Your task to perform on an android device: open app "WhatsApp Messenger" Image 0: 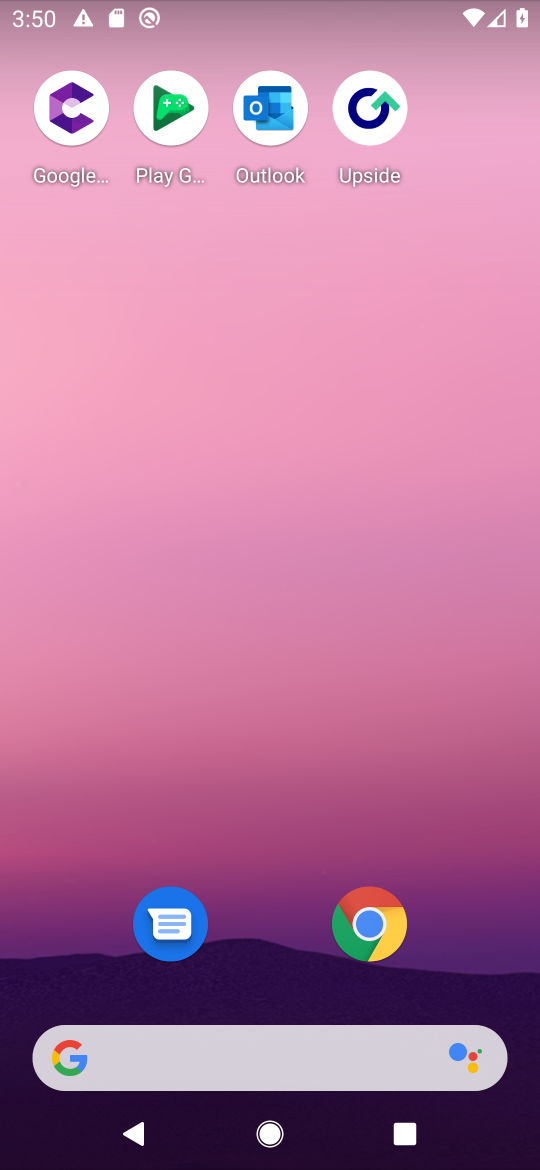
Step 0: drag from (427, 680) to (422, 187)
Your task to perform on an android device: open app "WhatsApp Messenger" Image 1: 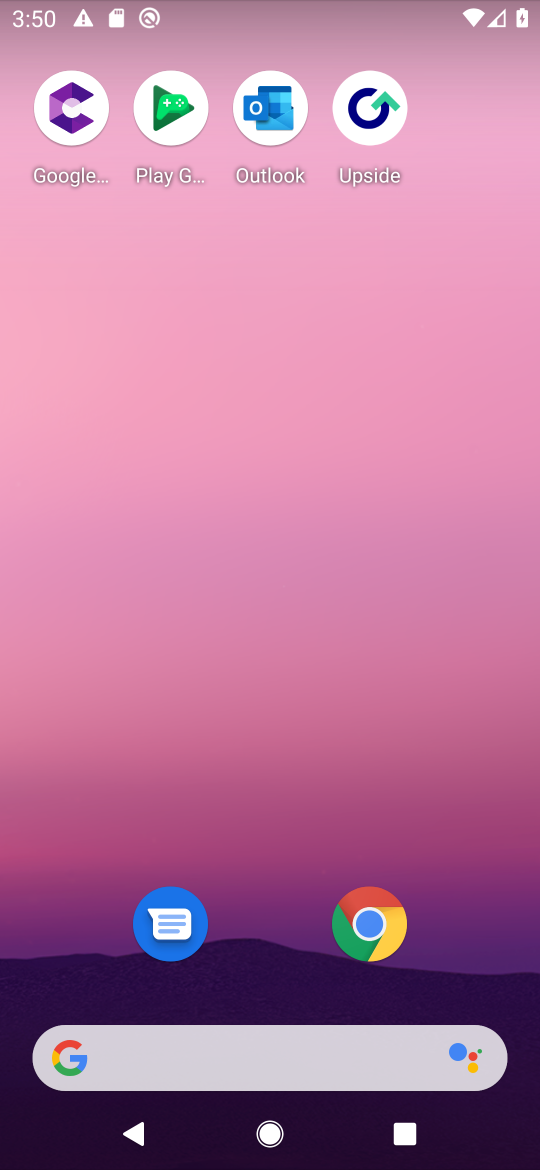
Step 1: drag from (289, 894) to (254, 10)
Your task to perform on an android device: open app "WhatsApp Messenger" Image 2: 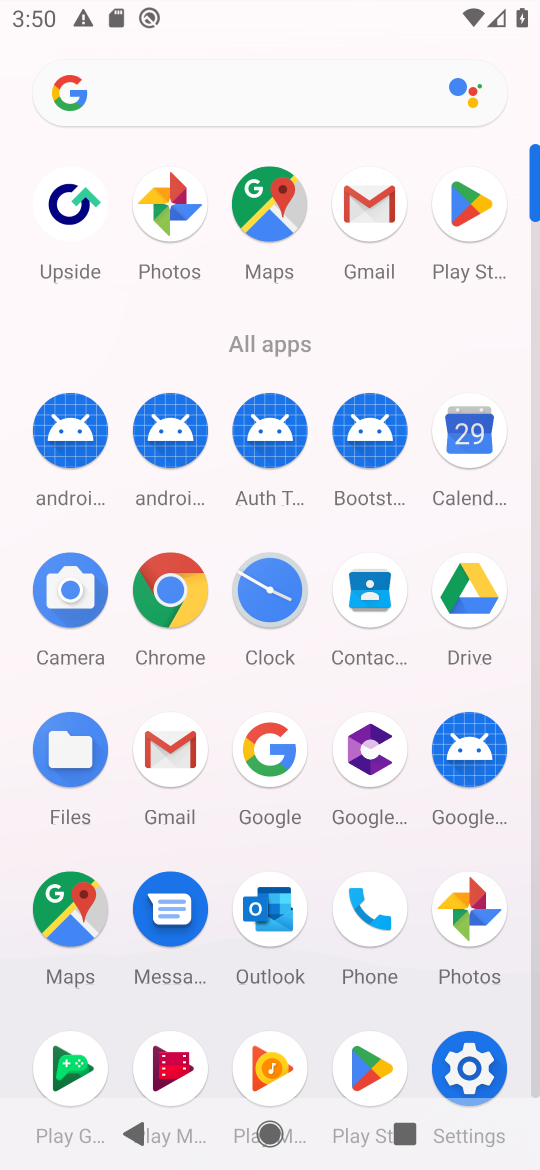
Step 2: click (449, 228)
Your task to perform on an android device: open app "WhatsApp Messenger" Image 3: 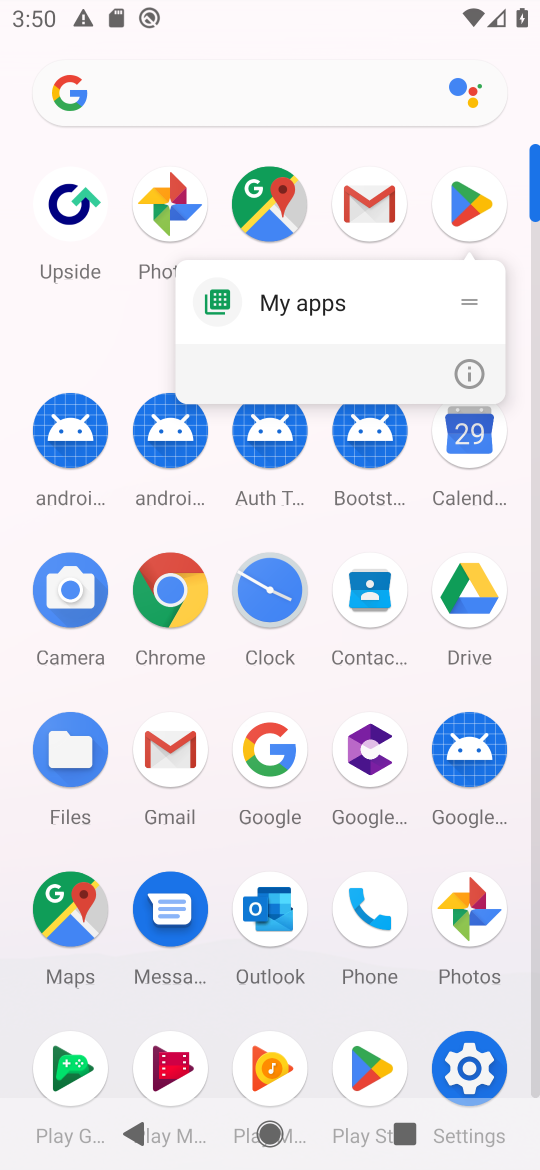
Step 3: click (462, 215)
Your task to perform on an android device: open app "WhatsApp Messenger" Image 4: 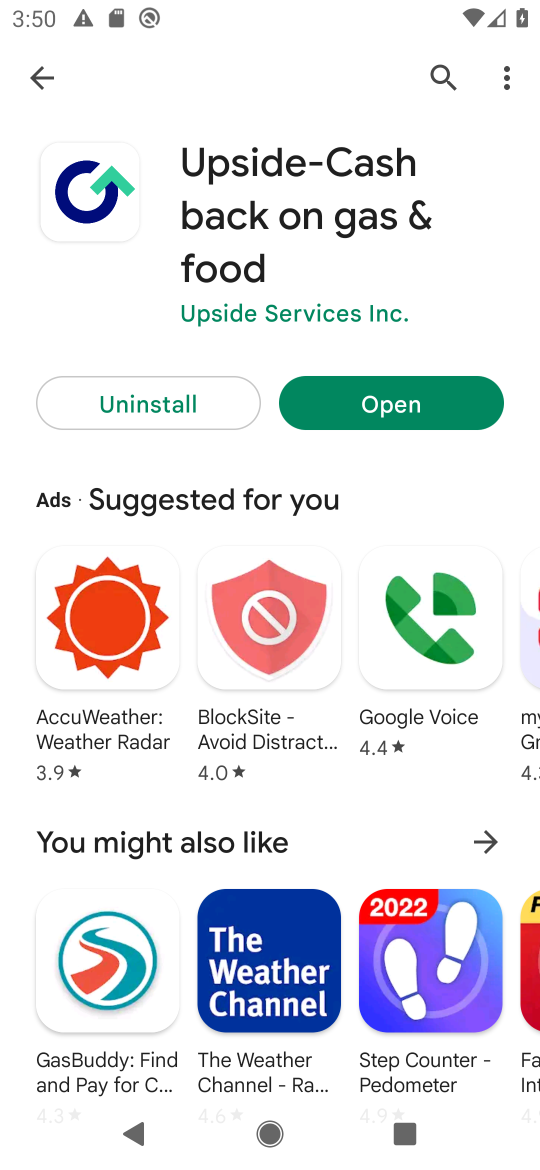
Step 4: click (432, 78)
Your task to perform on an android device: open app "WhatsApp Messenger" Image 5: 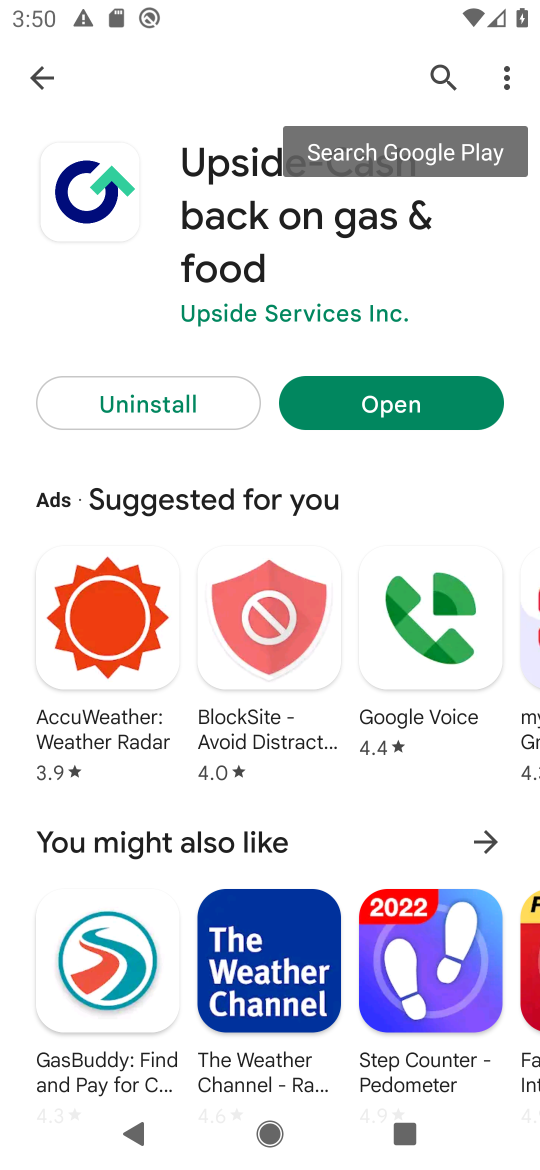
Step 5: click (441, 68)
Your task to perform on an android device: open app "WhatsApp Messenger" Image 6: 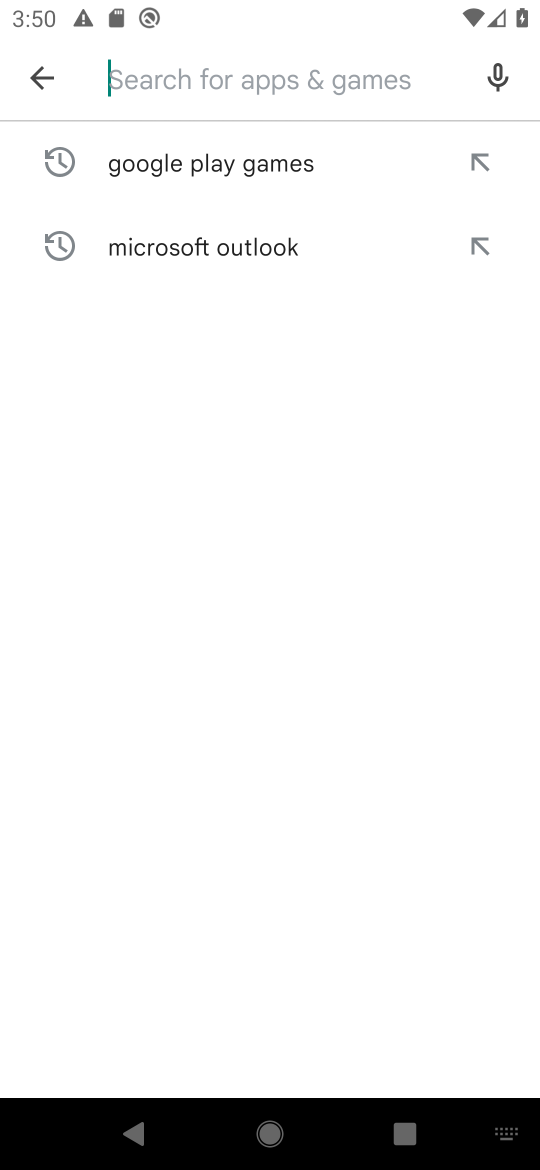
Step 6: click (340, 102)
Your task to perform on an android device: open app "WhatsApp Messenger" Image 7: 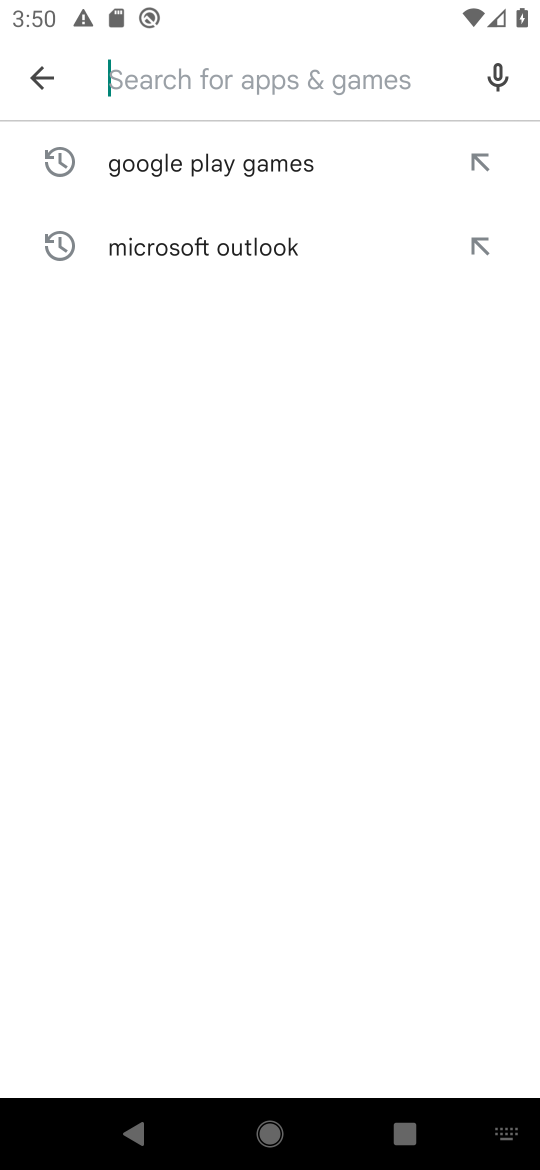
Step 7: type "WhatsApp Messenger"
Your task to perform on an android device: open app "WhatsApp Messenger" Image 8: 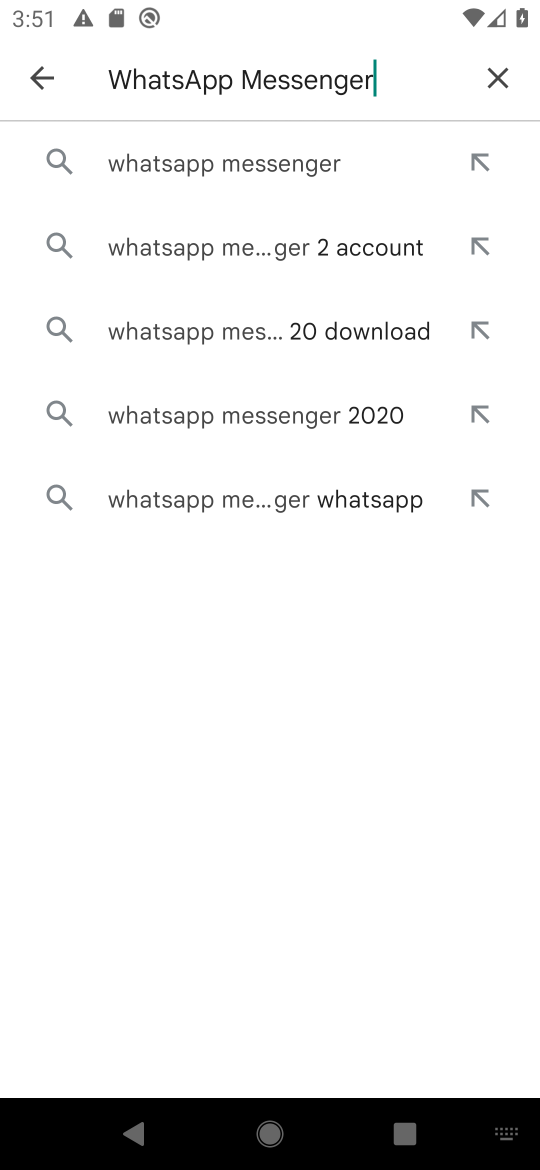
Step 8: click (209, 171)
Your task to perform on an android device: open app "WhatsApp Messenger" Image 9: 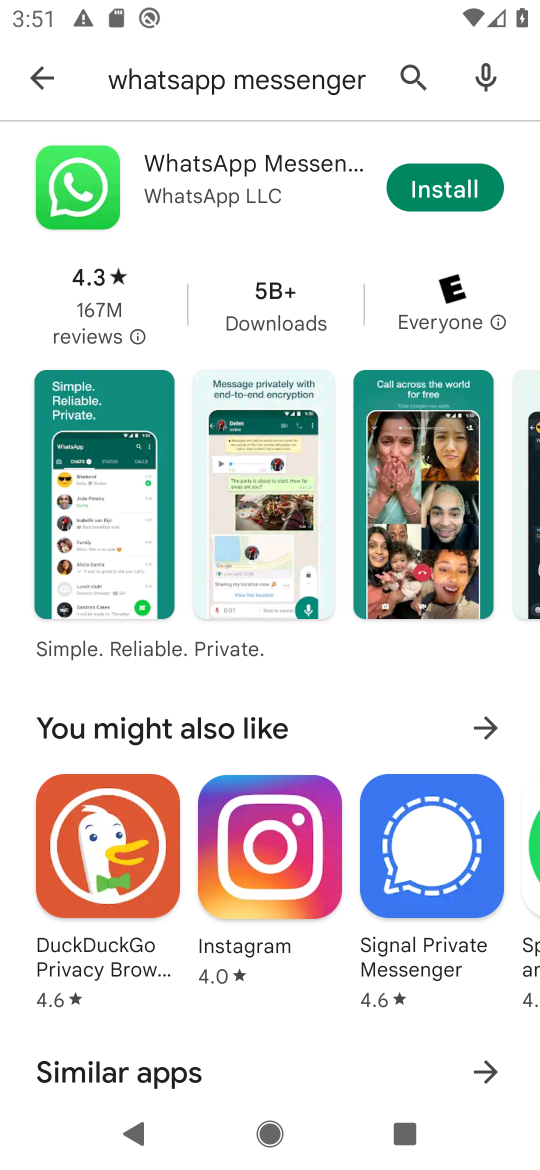
Step 9: task complete